Your task to perform on an android device: turn off smart reply in the gmail app Image 0: 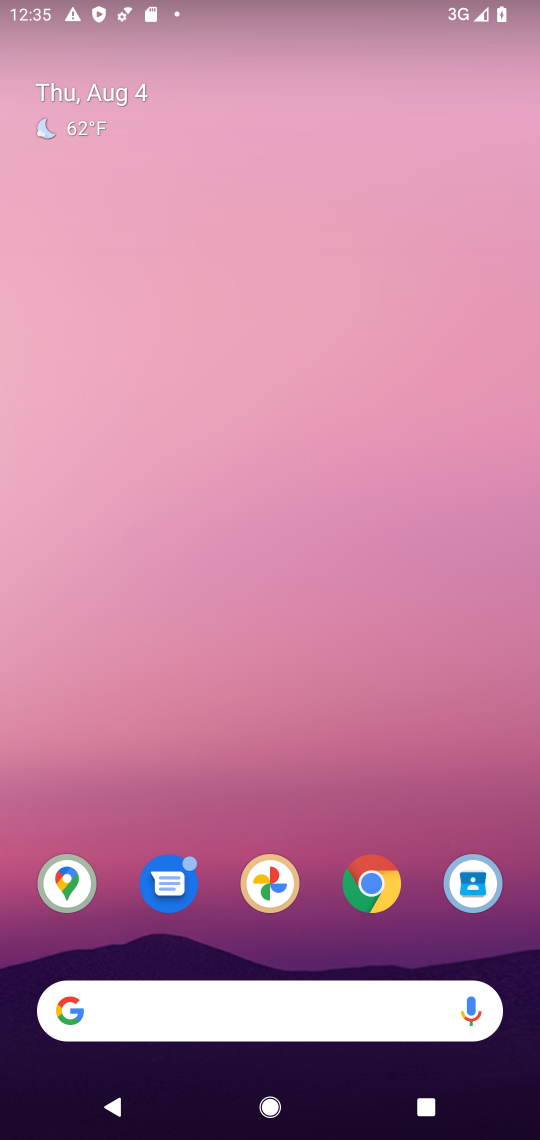
Step 0: drag from (206, 974) to (303, 296)
Your task to perform on an android device: turn off smart reply in the gmail app Image 1: 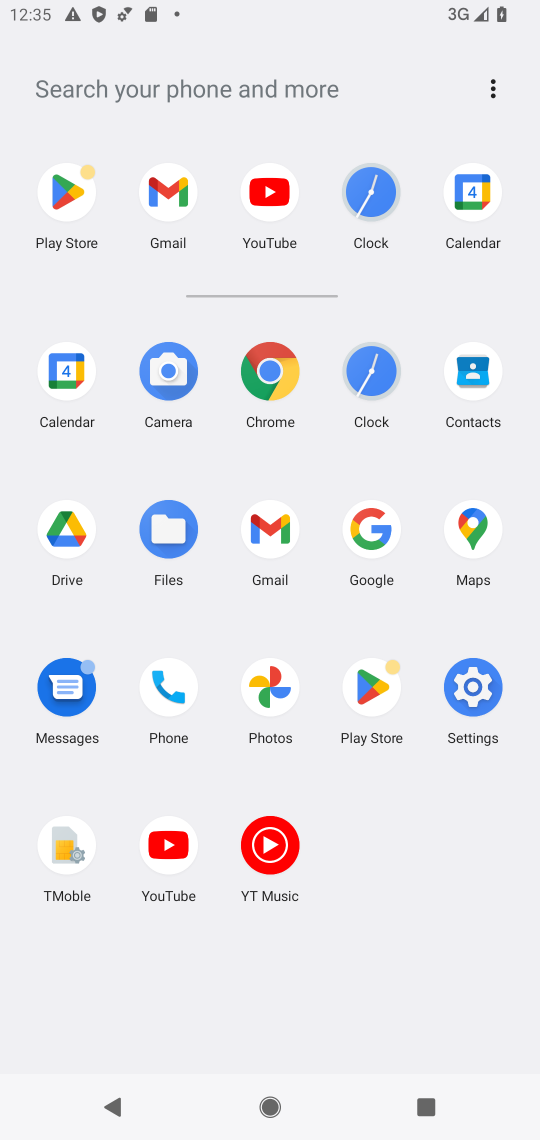
Step 1: click (260, 536)
Your task to perform on an android device: turn off smart reply in the gmail app Image 2: 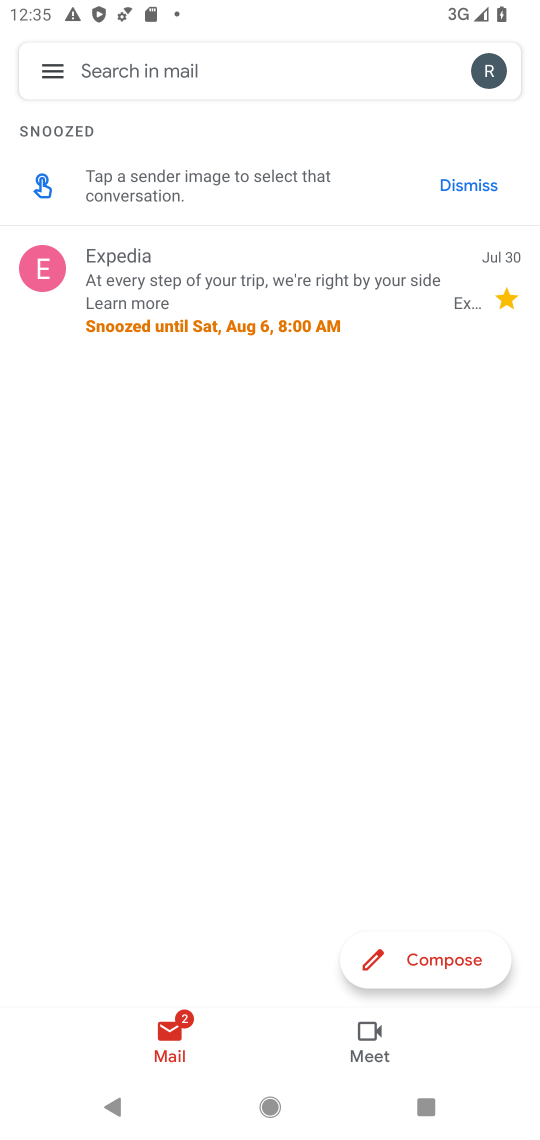
Step 2: drag from (274, 856) to (262, 545)
Your task to perform on an android device: turn off smart reply in the gmail app Image 3: 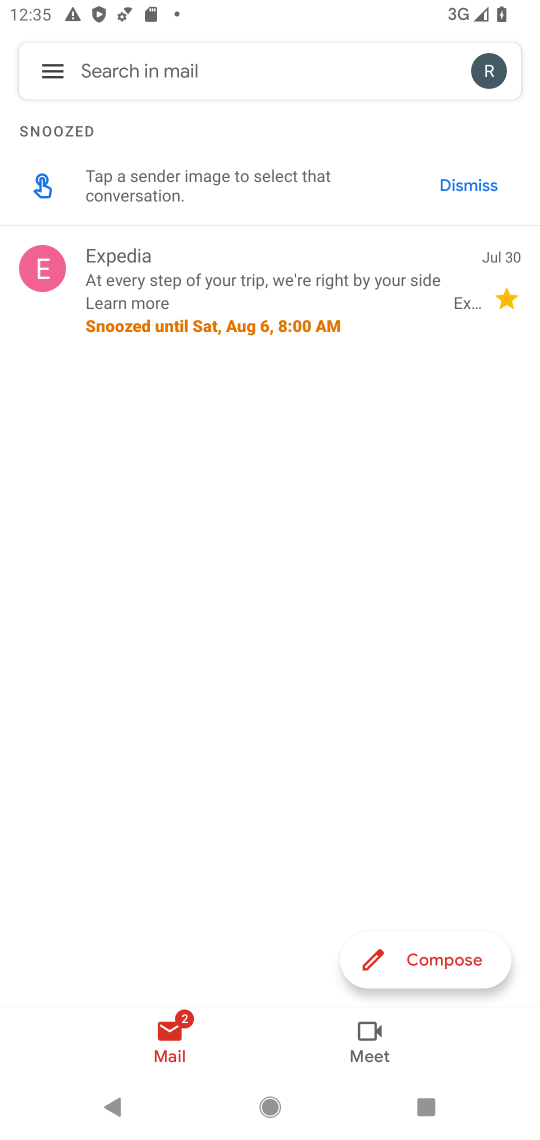
Step 3: click (48, 69)
Your task to perform on an android device: turn off smart reply in the gmail app Image 4: 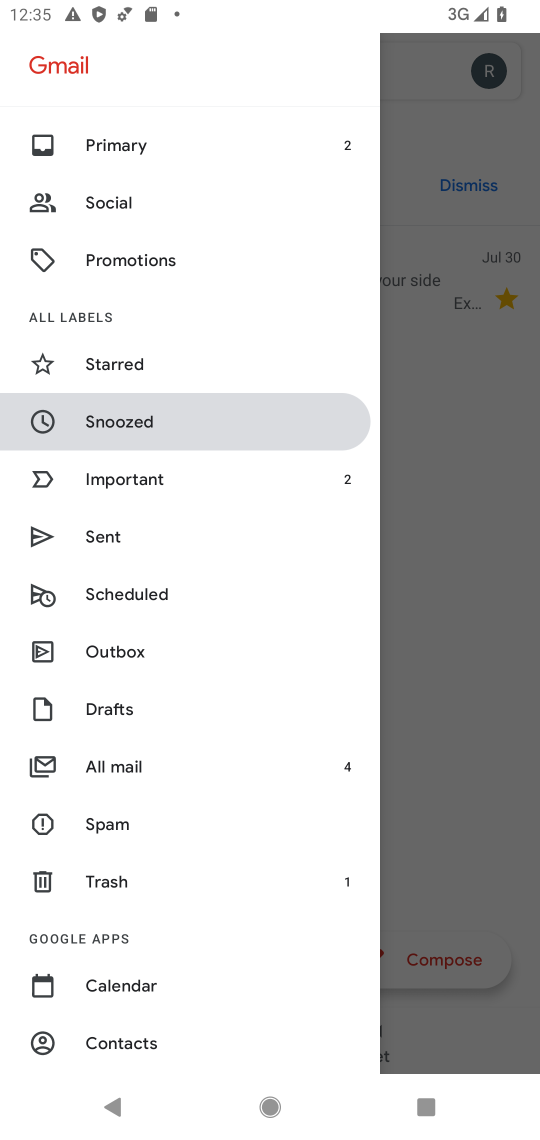
Step 4: drag from (135, 969) to (140, 246)
Your task to perform on an android device: turn off smart reply in the gmail app Image 5: 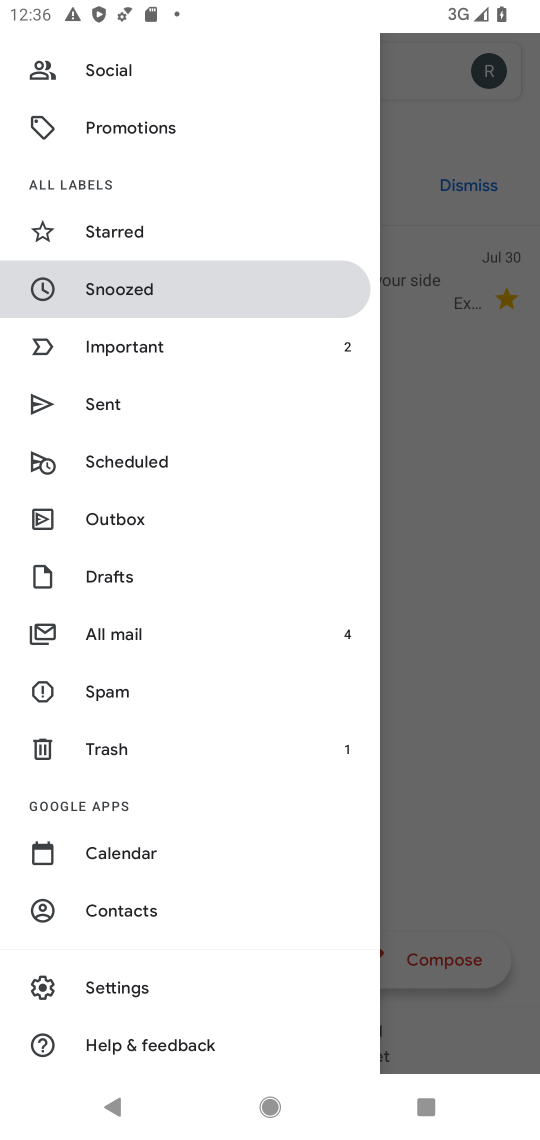
Step 5: drag from (186, 880) to (303, 428)
Your task to perform on an android device: turn off smart reply in the gmail app Image 6: 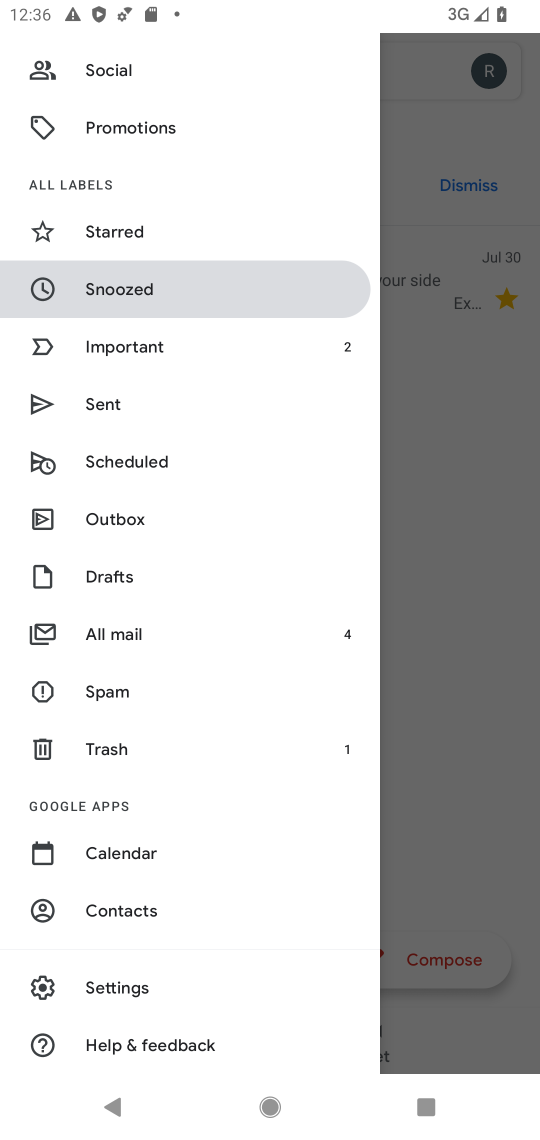
Step 6: drag from (208, 891) to (192, 193)
Your task to perform on an android device: turn off smart reply in the gmail app Image 7: 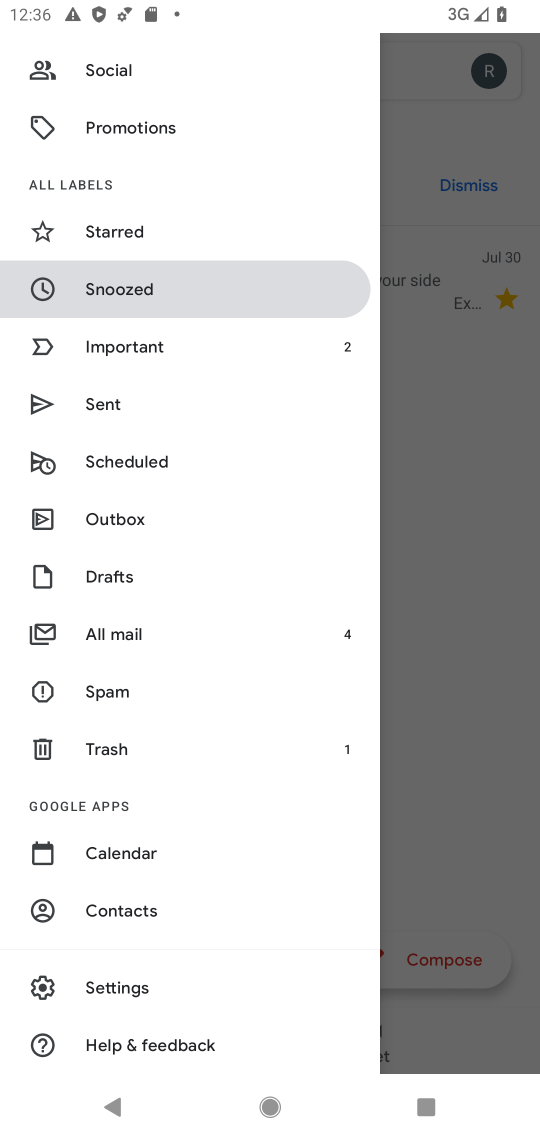
Step 7: drag from (232, 867) to (236, 533)
Your task to perform on an android device: turn off smart reply in the gmail app Image 8: 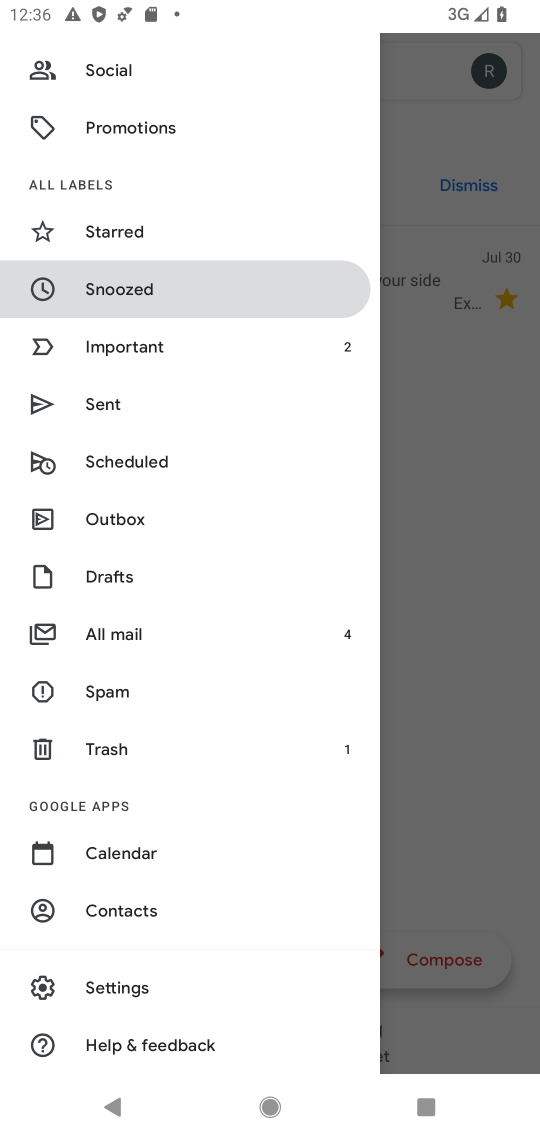
Step 8: drag from (179, 907) to (254, 297)
Your task to perform on an android device: turn off smart reply in the gmail app Image 9: 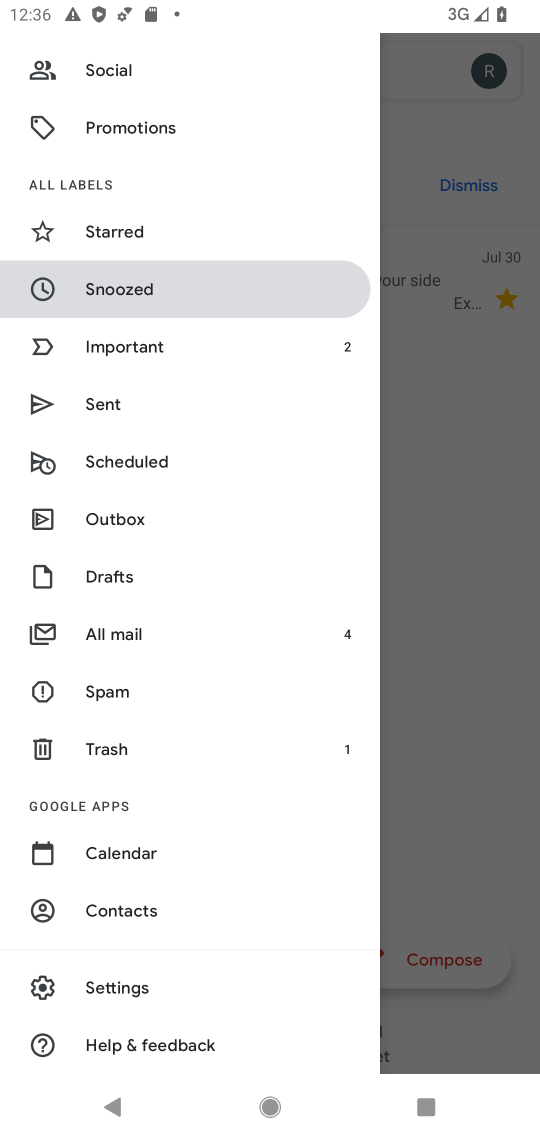
Step 9: drag from (233, 207) to (316, 1048)
Your task to perform on an android device: turn off smart reply in the gmail app Image 10: 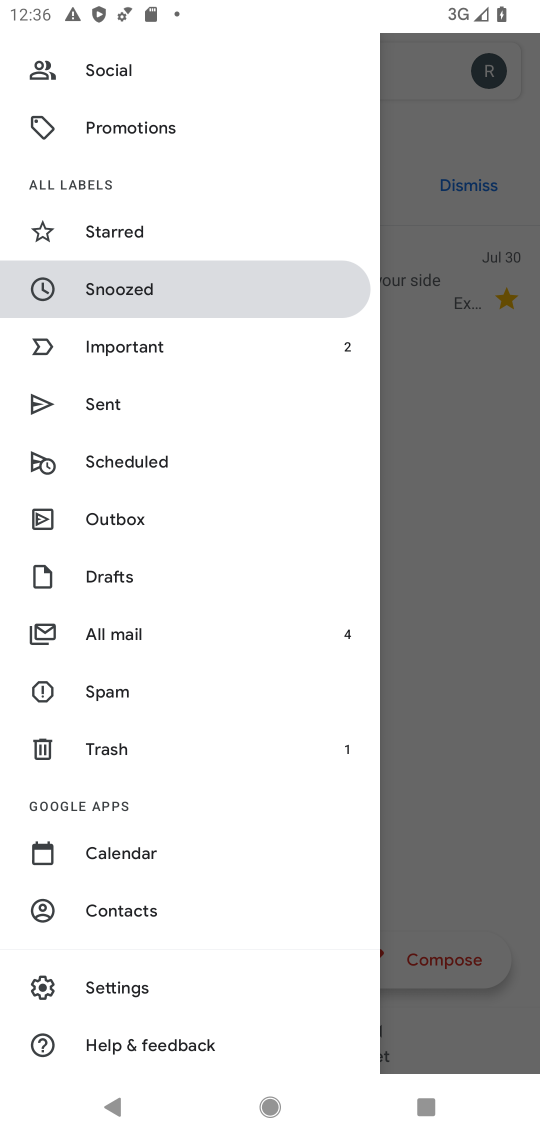
Step 10: drag from (299, 397) to (424, 918)
Your task to perform on an android device: turn off smart reply in the gmail app Image 11: 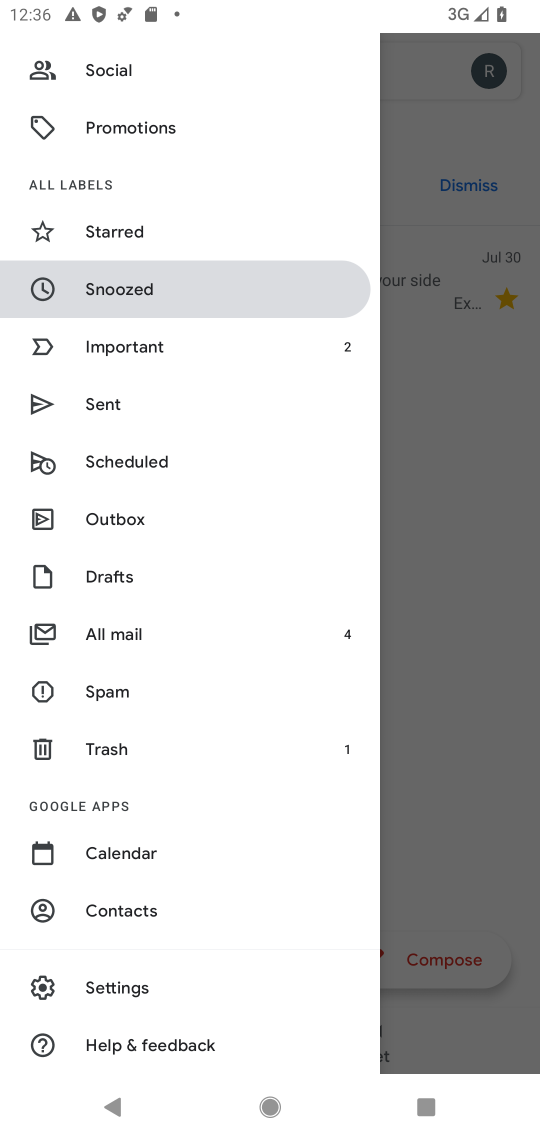
Step 11: drag from (154, 911) to (195, 250)
Your task to perform on an android device: turn off smart reply in the gmail app Image 12: 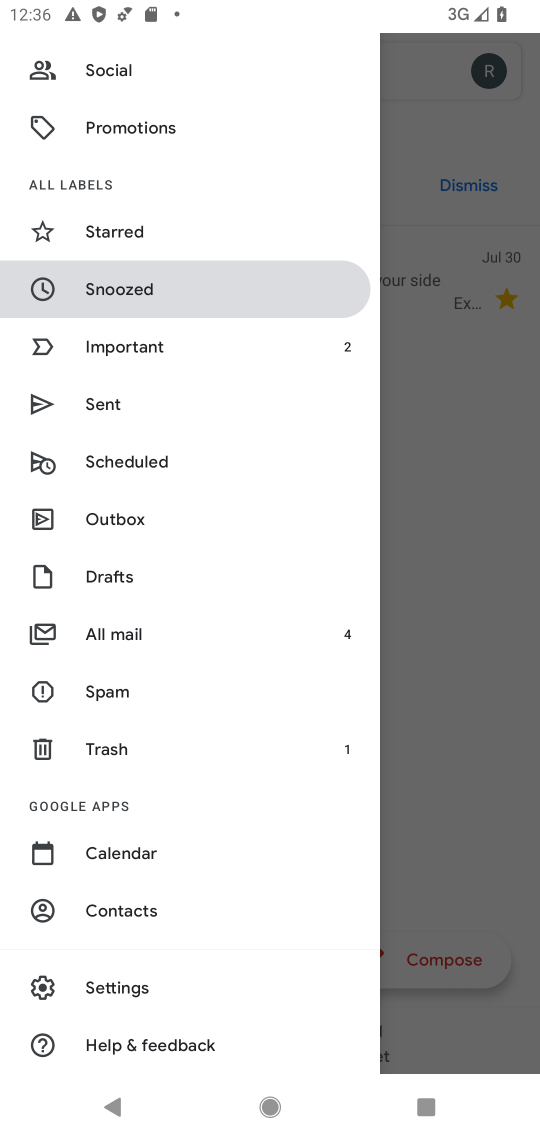
Step 12: click (131, 991)
Your task to perform on an android device: turn off smart reply in the gmail app Image 13: 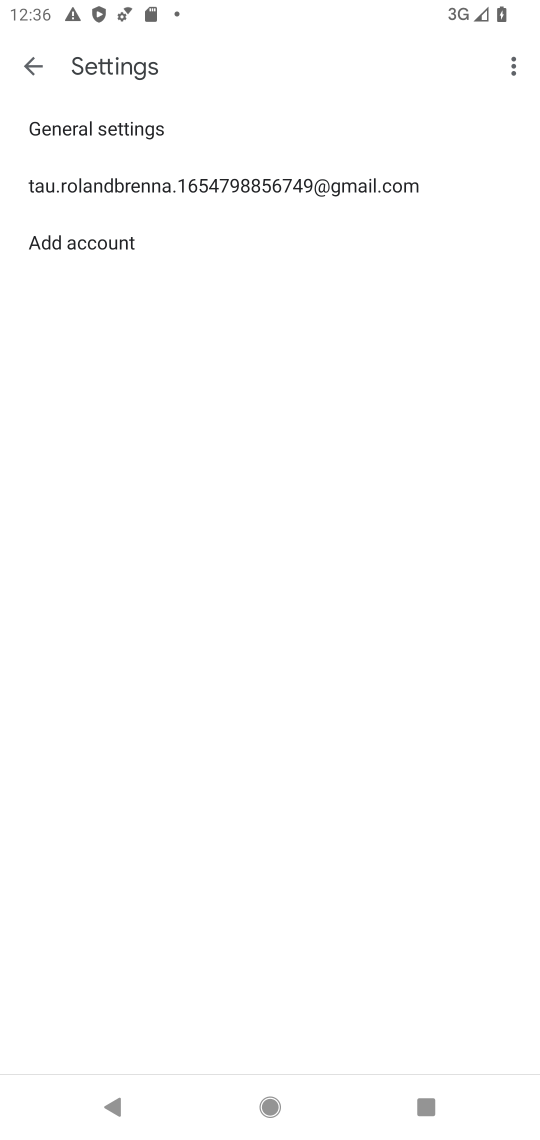
Step 13: click (149, 186)
Your task to perform on an android device: turn off smart reply in the gmail app Image 14: 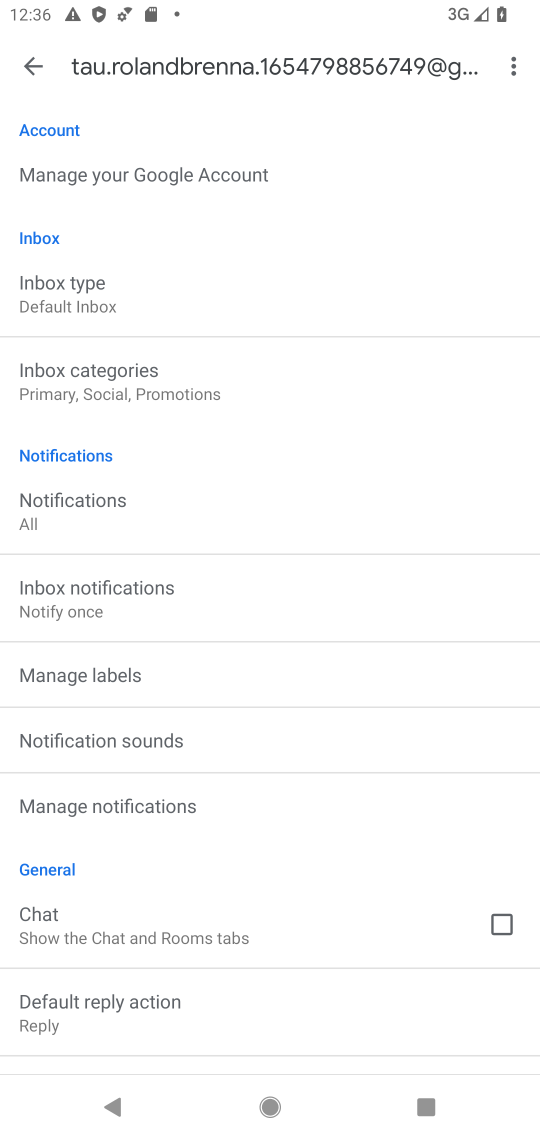
Step 14: drag from (226, 808) to (296, 296)
Your task to perform on an android device: turn off smart reply in the gmail app Image 15: 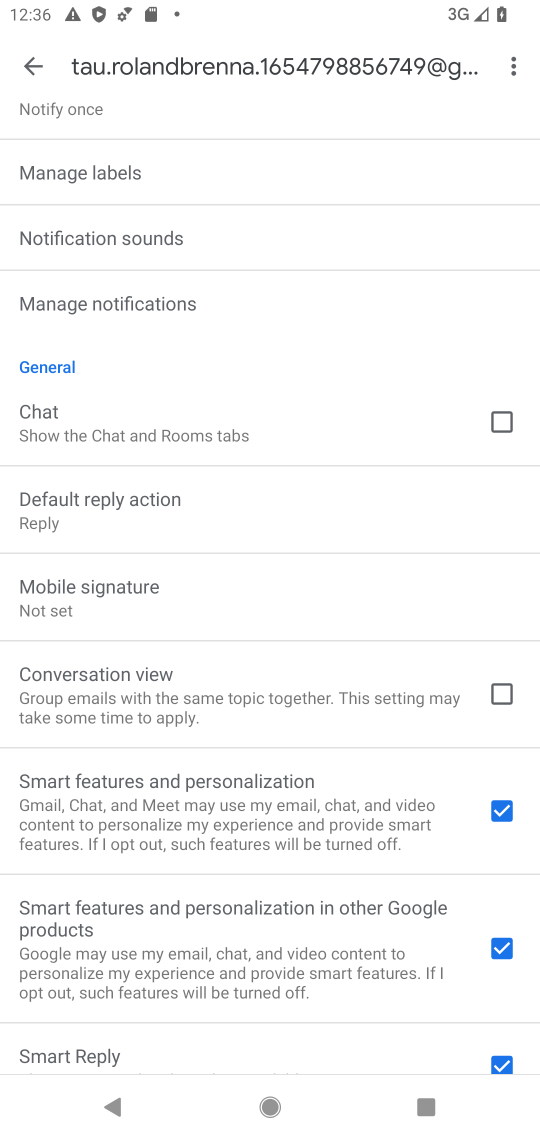
Step 15: drag from (328, 837) to (450, 279)
Your task to perform on an android device: turn off smart reply in the gmail app Image 16: 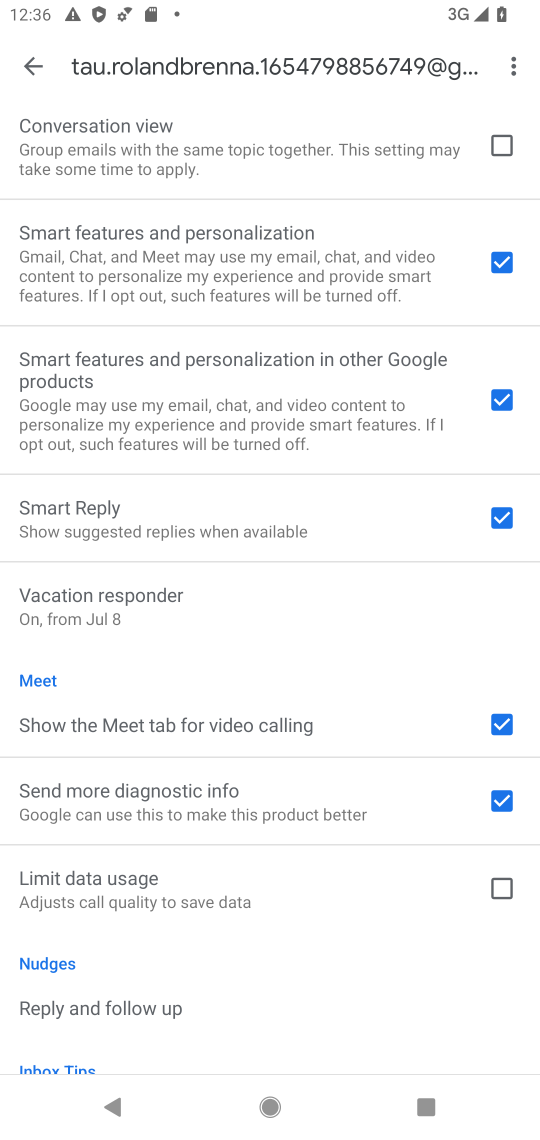
Step 16: click (503, 522)
Your task to perform on an android device: turn off smart reply in the gmail app Image 17: 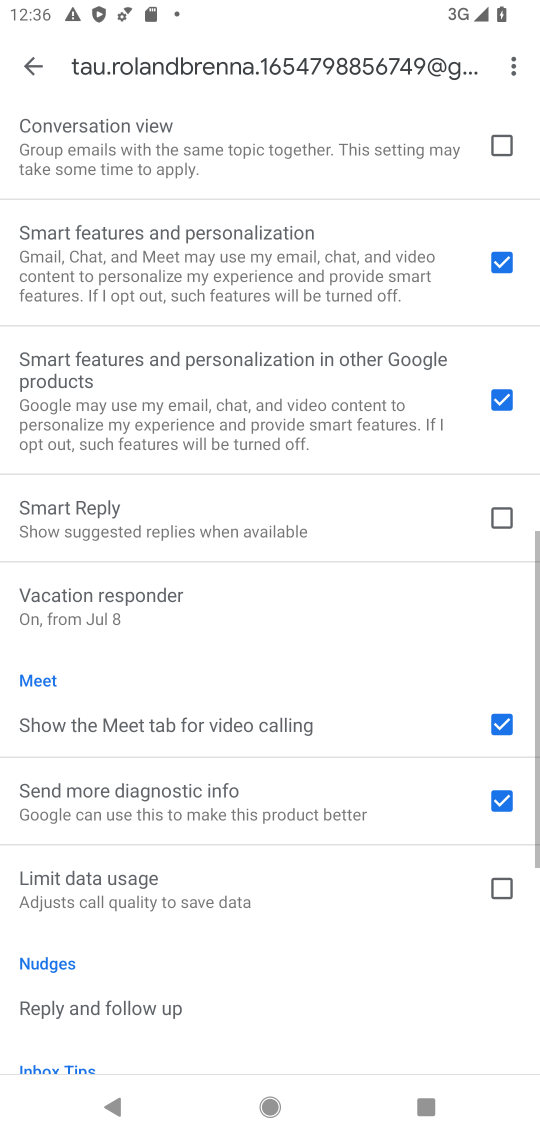
Step 17: task complete